Your task to perform on an android device: Go to CNN.com Image 0: 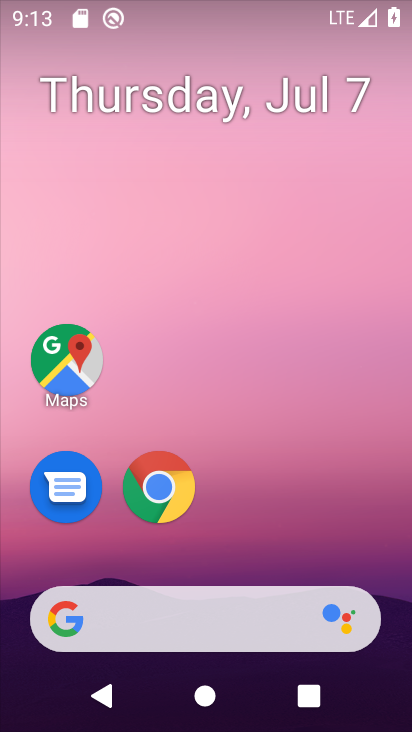
Step 0: drag from (365, 533) to (349, 117)
Your task to perform on an android device: Go to CNN.com Image 1: 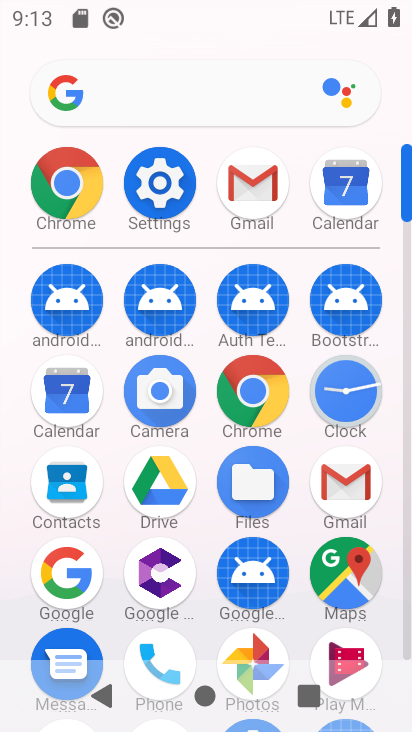
Step 1: click (258, 380)
Your task to perform on an android device: Go to CNN.com Image 2: 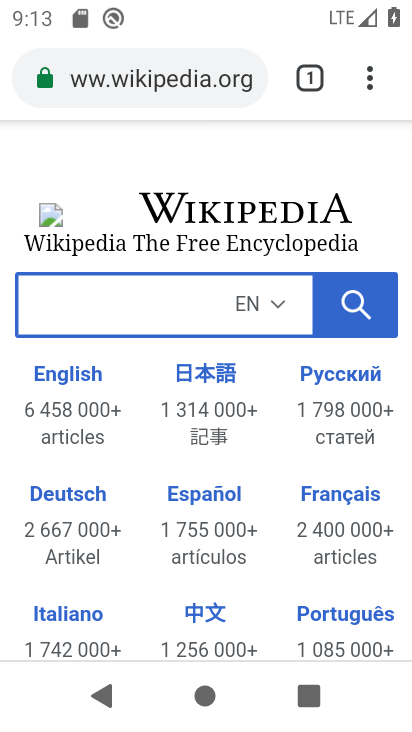
Step 2: click (210, 95)
Your task to perform on an android device: Go to CNN.com Image 3: 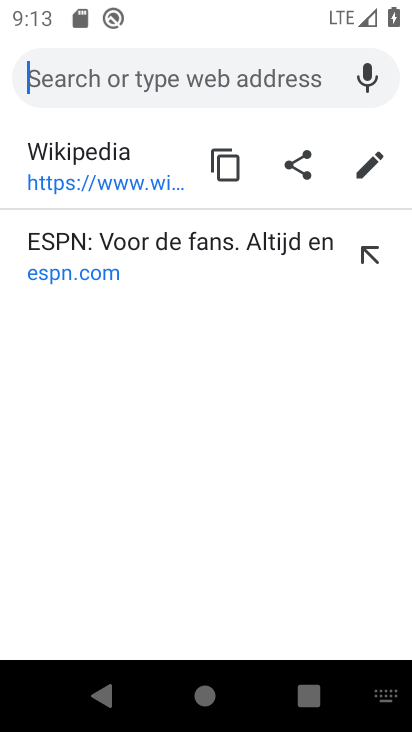
Step 3: type "cnn.com"
Your task to perform on an android device: Go to CNN.com Image 4: 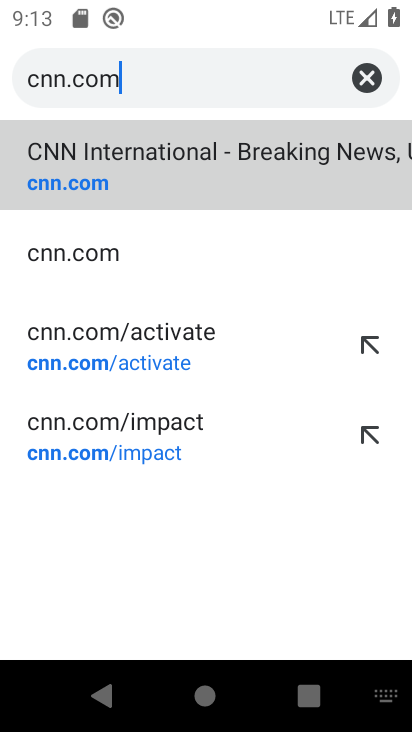
Step 4: click (294, 187)
Your task to perform on an android device: Go to CNN.com Image 5: 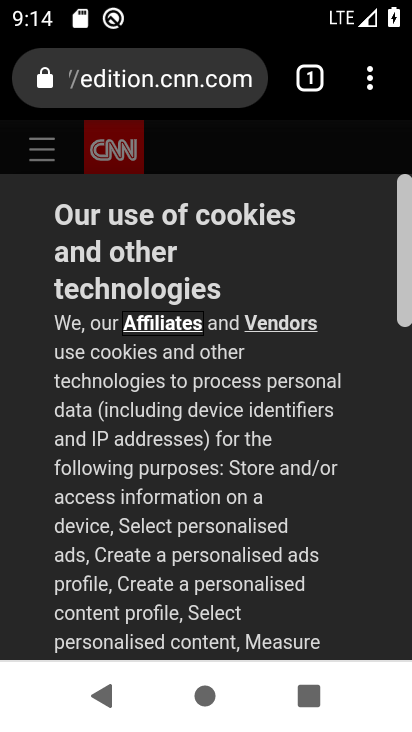
Step 5: task complete